Your task to perform on an android device: Open Chrome and go to the settings page Image 0: 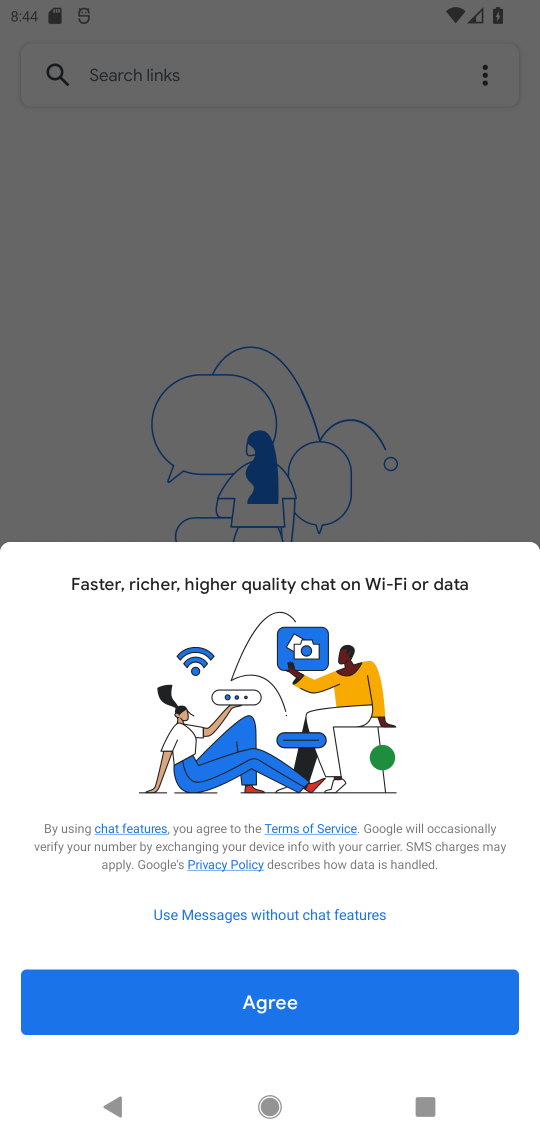
Step 0: press home button
Your task to perform on an android device: Open Chrome and go to the settings page Image 1: 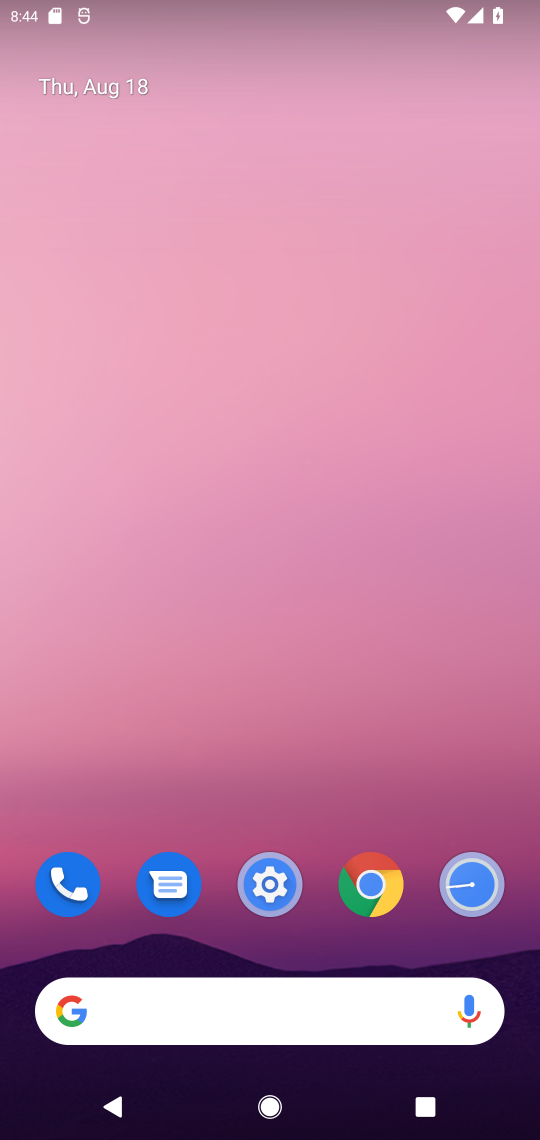
Step 1: click (357, 875)
Your task to perform on an android device: Open Chrome and go to the settings page Image 2: 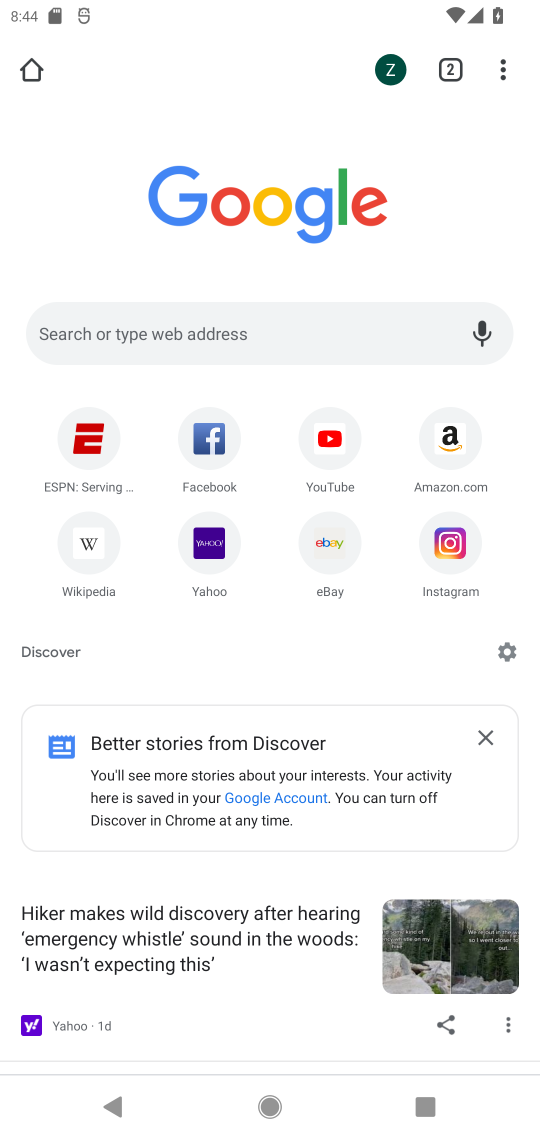
Step 2: click (519, 61)
Your task to perform on an android device: Open Chrome and go to the settings page Image 3: 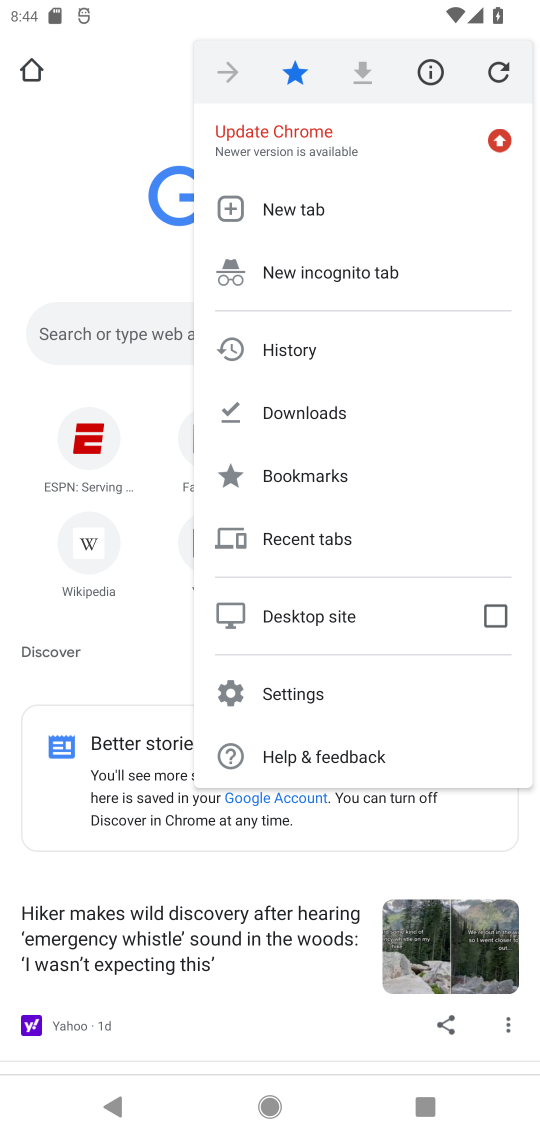
Step 3: click (298, 696)
Your task to perform on an android device: Open Chrome and go to the settings page Image 4: 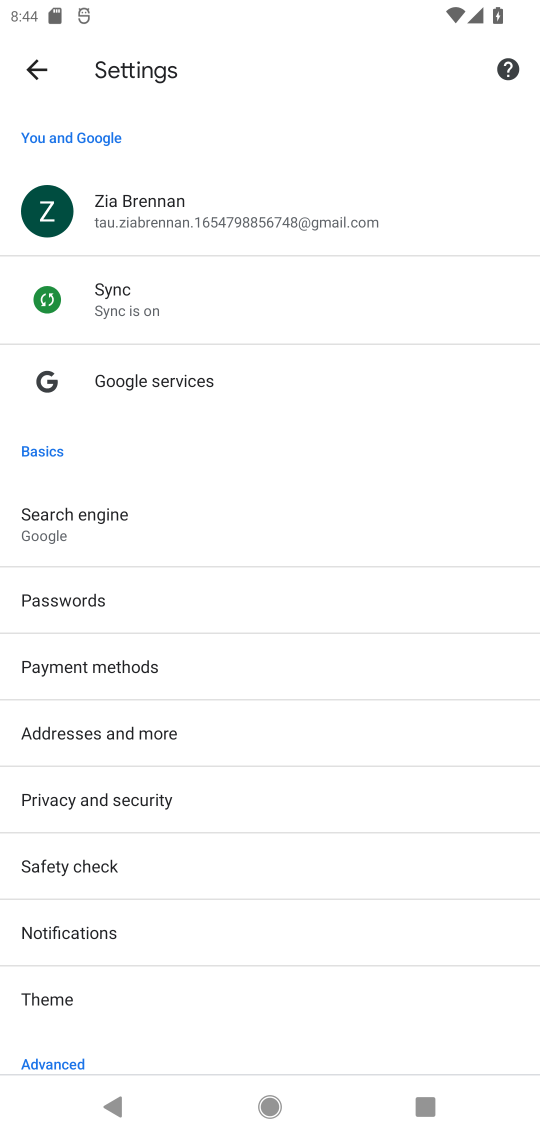
Step 4: task complete